Your task to perform on an android device: Go to Android settings Image 0: 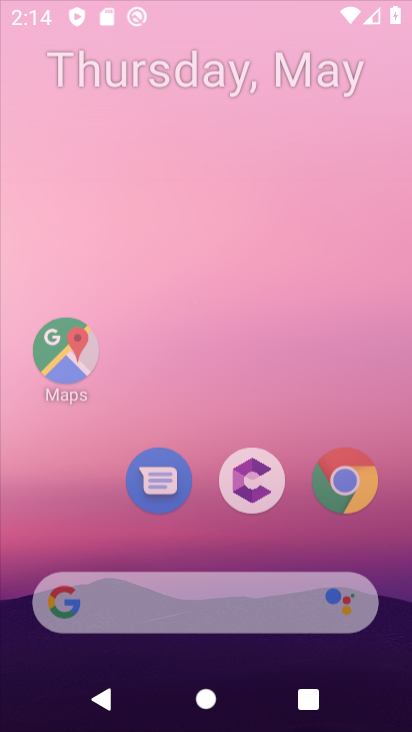
Step 0: press home button
Your task to perform on an android device: Go to Android settings Image 1: 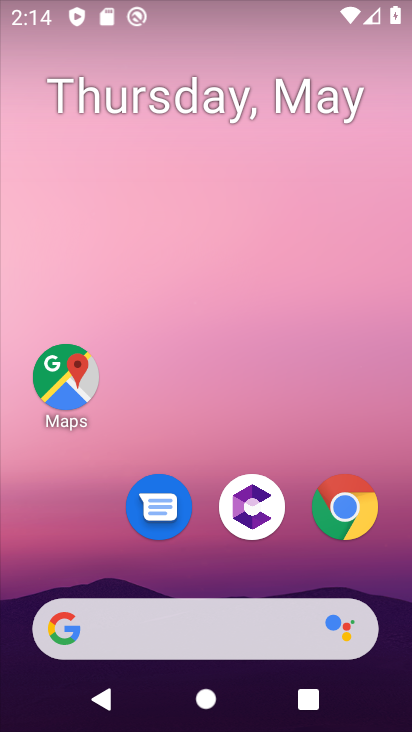
Step 1: drag from (175, 529) to (186, 103)
Your task to perform on an android device: Go to Android settings Image 2: 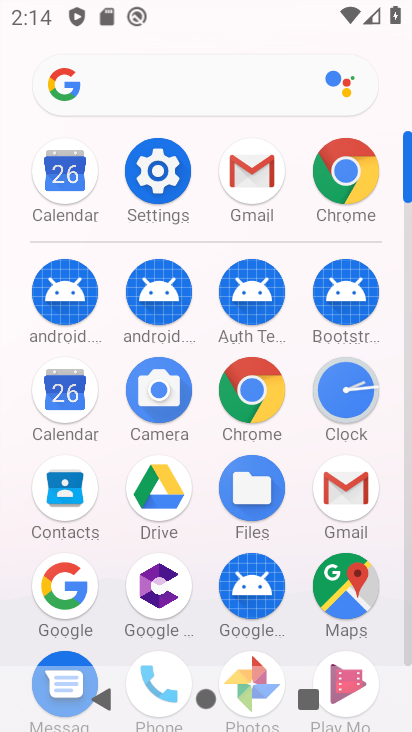
Step 2: click (152, 187)
Your task to perform on an android device: Go to Android settings Image 3: 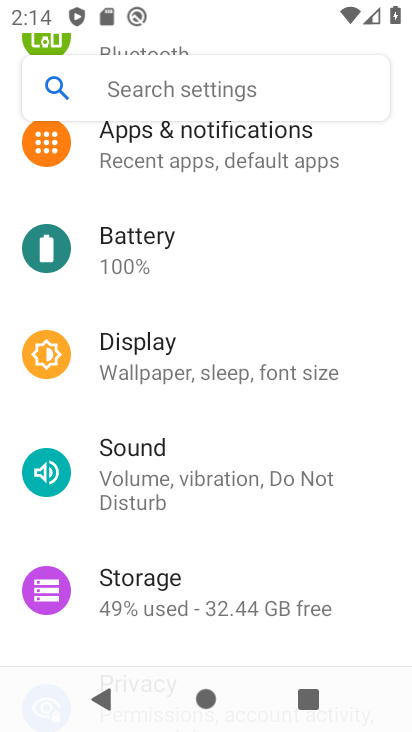
Step 3: drag from (326, 501) to (330, 9)
Your task to perform on an android device: Go to Android settings Image 4: 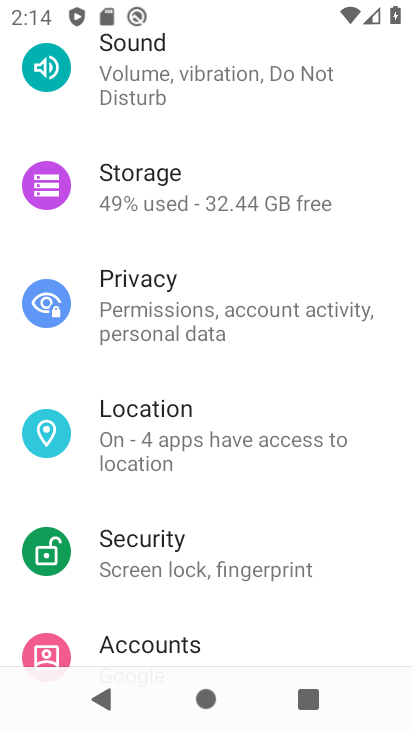
Step 4: drag from (293, 523) to (293, 0)
Your task to perform on an android device: Go to Android settings Image 5: 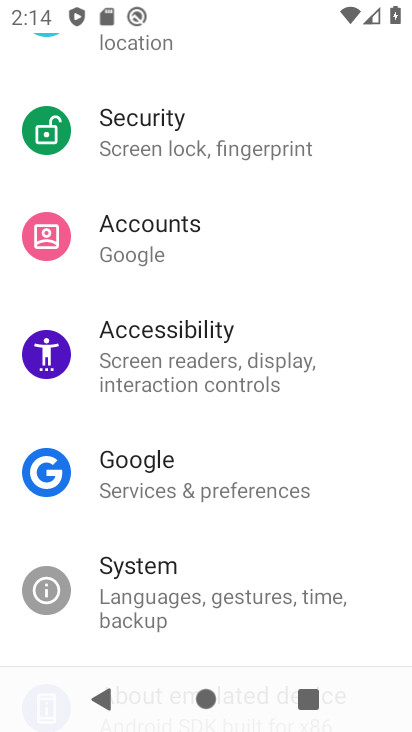
Step 5: drag from (174, 544) to (230, 189)
Your task to perform on an android device: Go to Android settings Image 6: 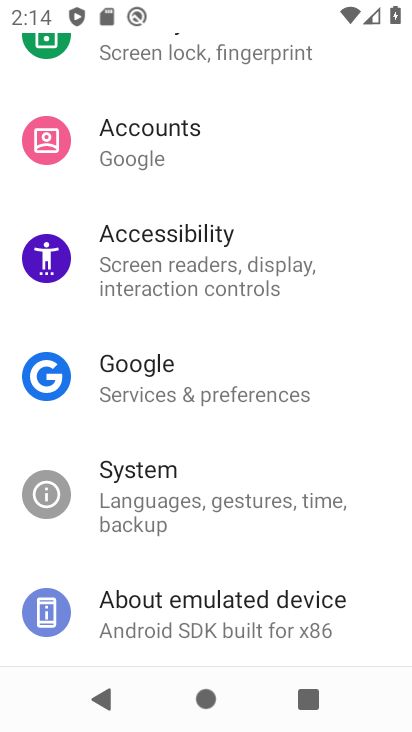
Step 6: click (169, 613)
Your task to perform on an android device: Go to Android settings Image 7: 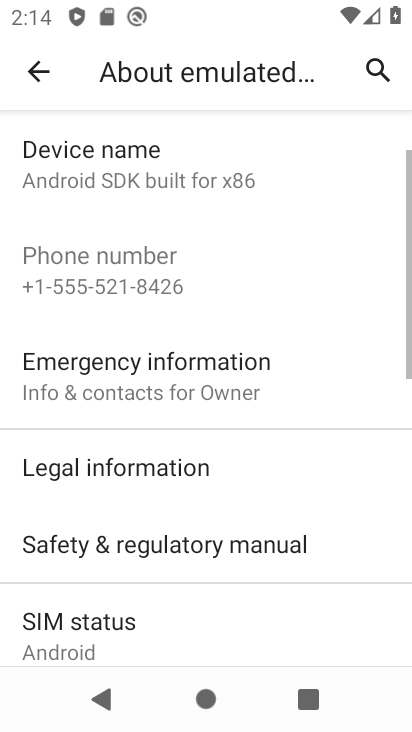
Step 7: task complete